Your task to perform on an android device: delete browsing data in the chrome app Image 0: 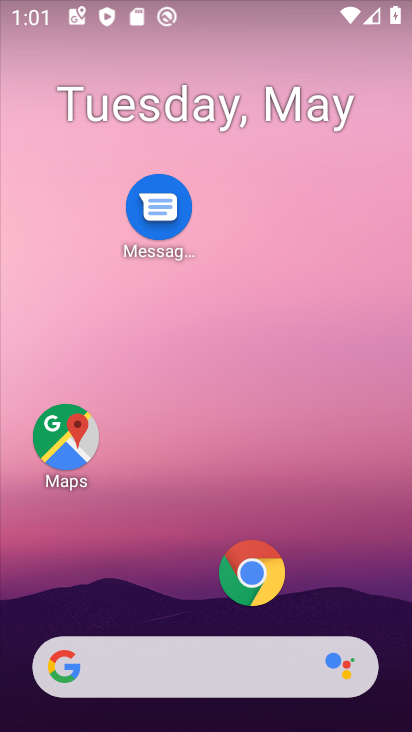
Step 0: click (256, 567)
Your task to perform on an android device: delete browsing data in the chrome app Image 1: 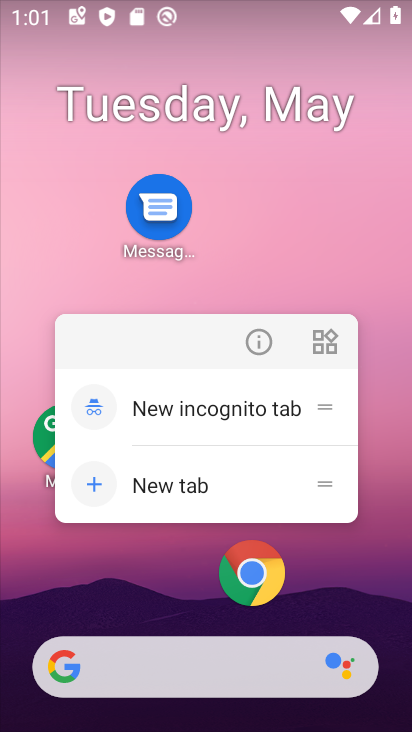
Step 1: click (254, 569)
Your task to perform on an android device: delete browsing data in the chrome app Image 2: 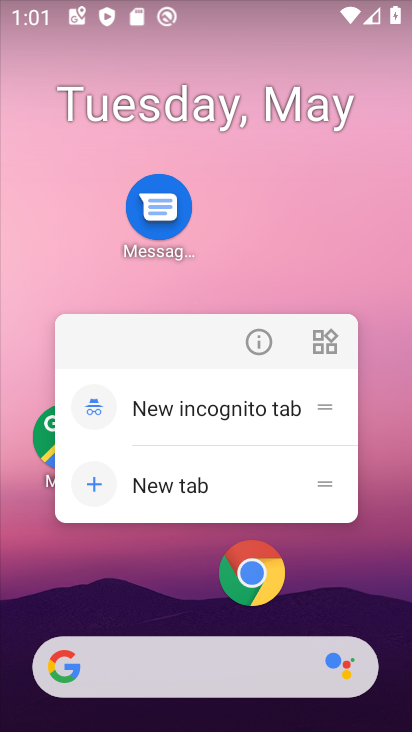
Step 2: click (253, 568)
Your task to perform on an android device: delete browsing data in the chrome app Image 3: 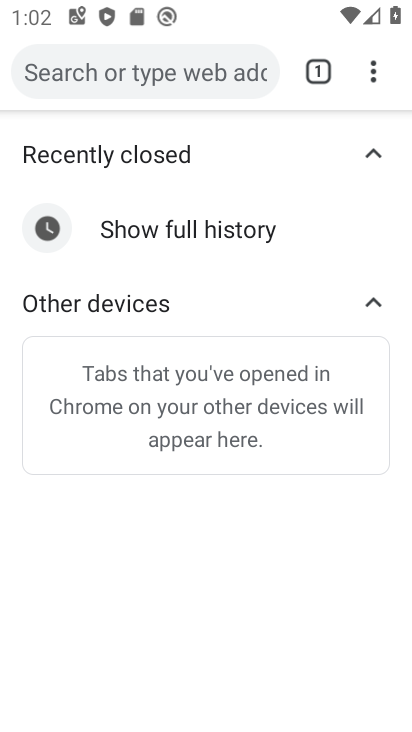
Step 3: click (368, 77)
Your task to perform on an android device: delete browsing data in the chrome app Image 4: 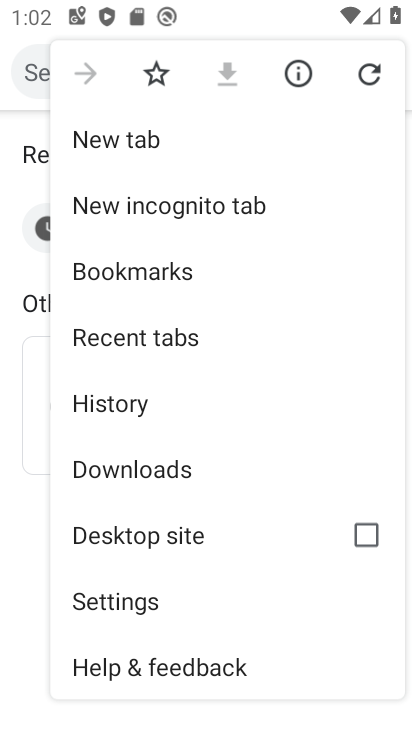
Step 4: click (132, 410)
Your task to perform on an android device: delete browsing data in the chrome app Image 5: 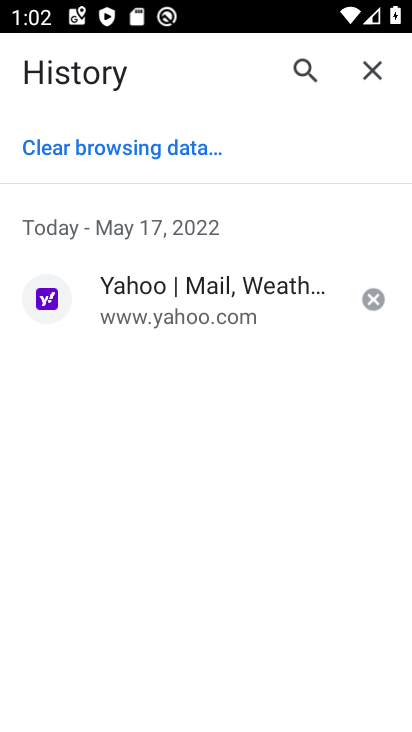
Step 5: click (151, 168)
Your task to perform on an android device: delete browsing data in the chrome app Image 6: 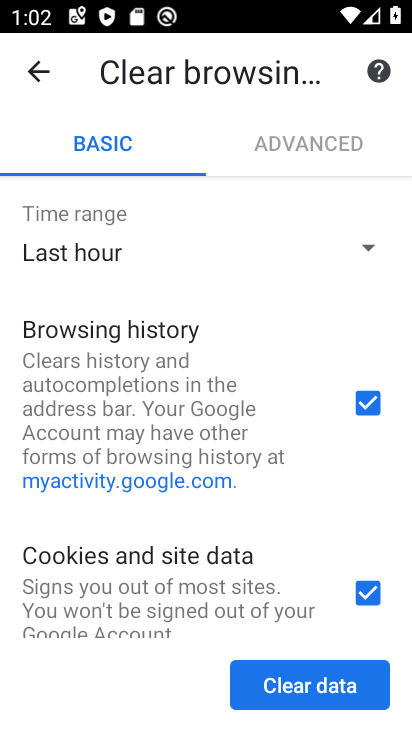
Step 6: click (289, 679)
Your task to perform on an android device: delete browsing data in the chrome app Image 7: 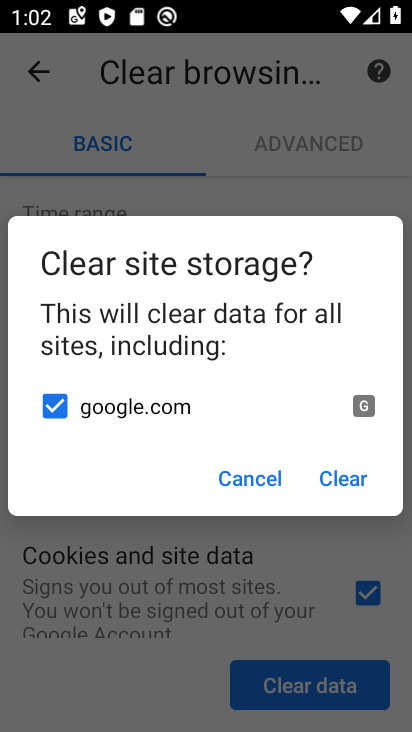
Step 7: click (345, 484)
Your task to perform on an android device: delete browsing data in the chrome app Image 8: 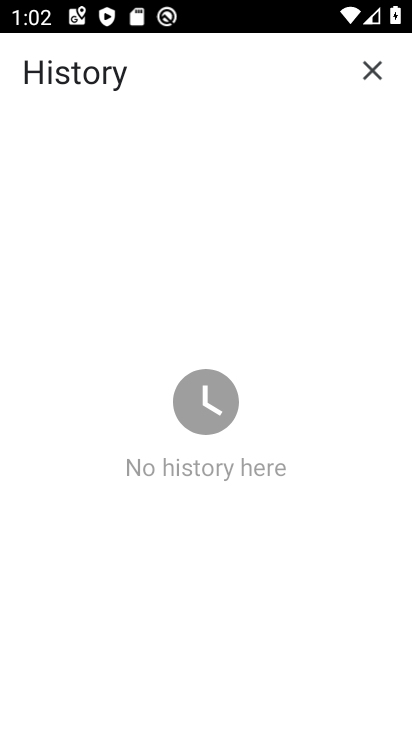
Step 8: task complete